Your task to perform on an android device: Open eBay Image 0: 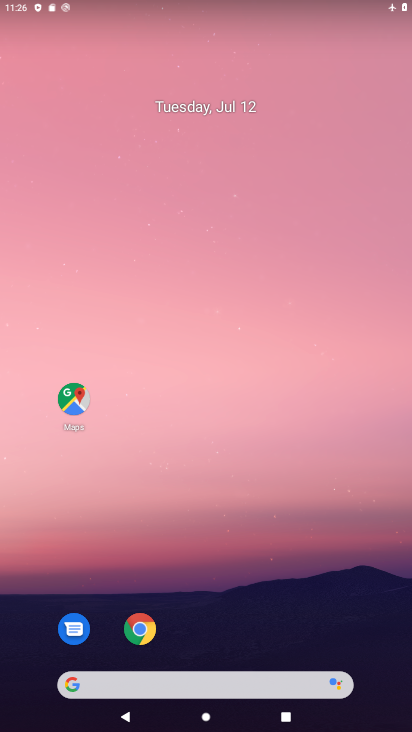
Step 0: click (154, 634)
Your task to perform on an android device: Open eBay Image 1: 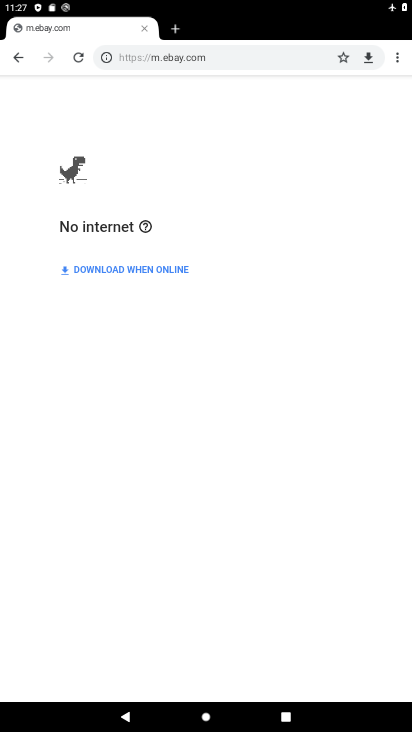
Step 1: drag from (186, 165) to (158, 415)
Your task to perform on an android device: Open eBay Image 2: 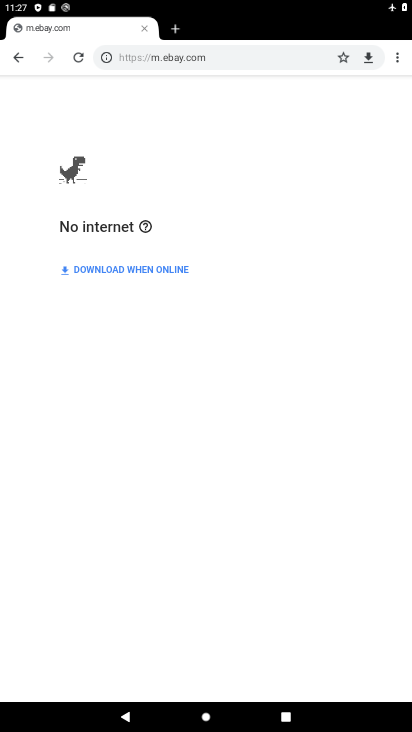
Step 2: click (72, 53)
Your task to perform on an android device: Open eBay Image 3: 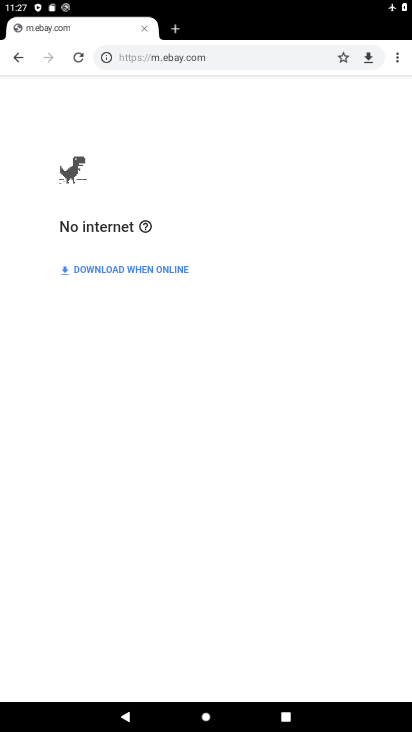
Step 3: task complete